Your task to perform on an android device: Search for seafood restaurants on Google Maps Image 0: 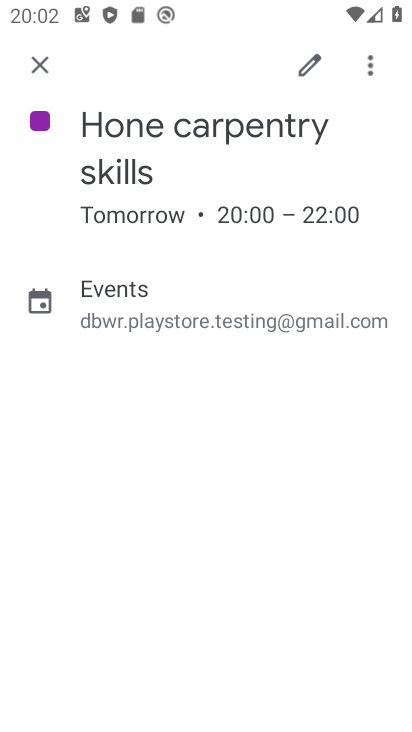
Step 0: press back button
Your task to perform on an android device: Search for seafood restaurants on Google Maps Image 1: 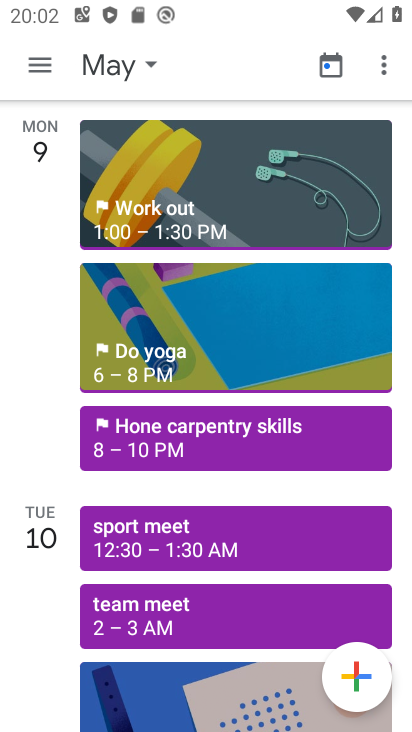
Step 1: press back button
Your task to perform on an android device: Search for seafood restaurants on Google Maps Image 2: 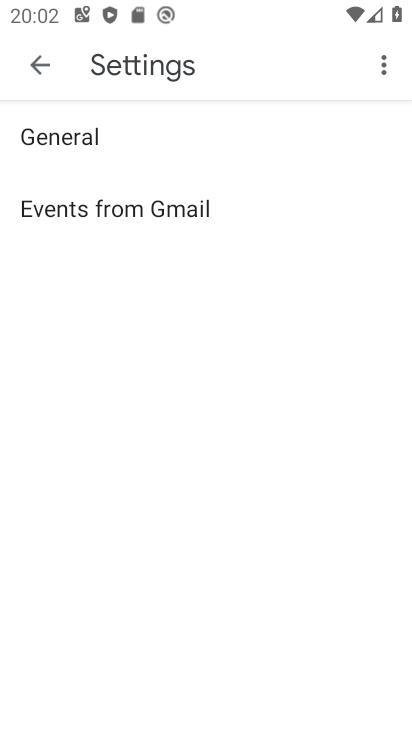
Step 2: press back button
Your task to perform on an android device: Search for seafood restaurants on Google Maps Image 3: 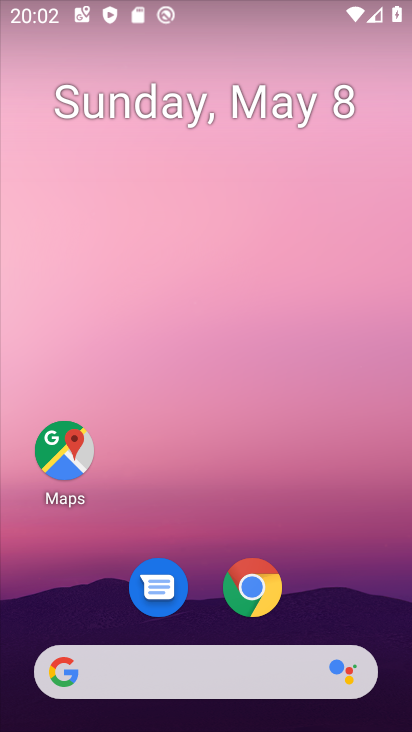
Step 3: click (65, 452)
Your task to perform on an android device: Search for seafood restaurants on Google Maps Image 4: 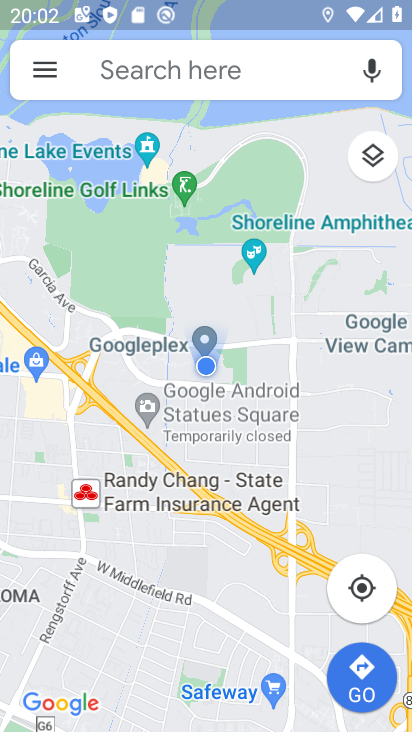
Step 4: click (224, 79)
Your task to perform on an android device: Search for seafood restaurants on Google Maps Image 5: 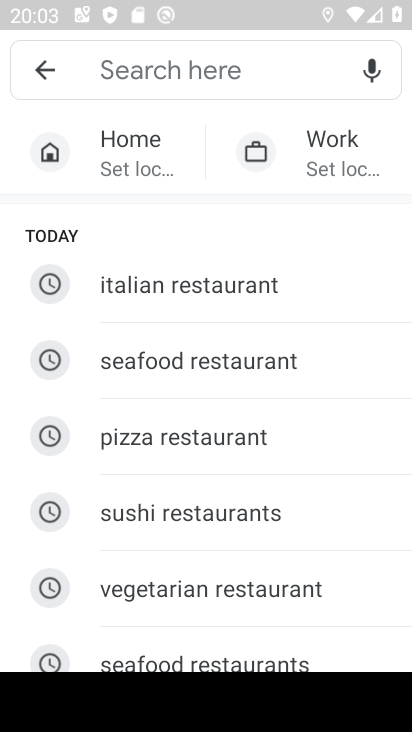
Step 5: type "seafood restaurants"
Your task to perform on an android device: Search for seafood restaurants on Google Maps Image 6: 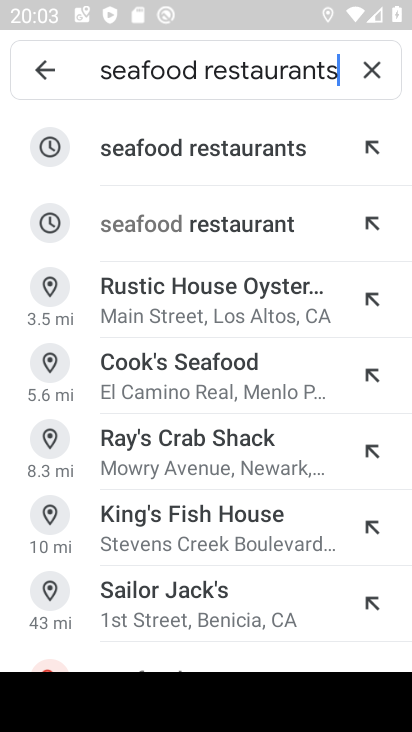
Step 6: click (248, 154)
Your task to perform on an android device: Search for seafood restaurants on Google Maps Image 7: 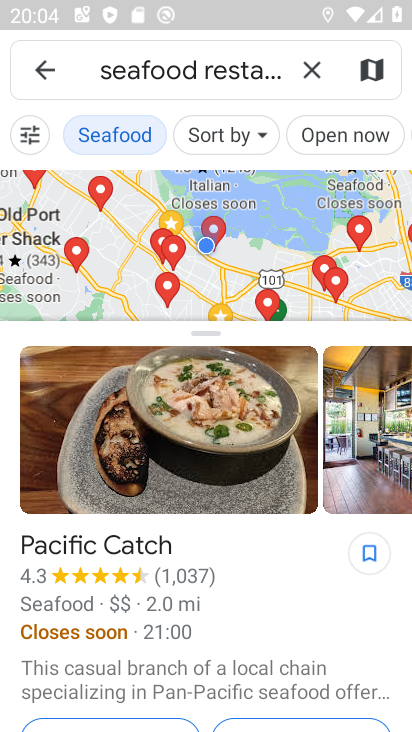
Step 7: task complete